Your task to perform on an android device: remove spam from my inbox in the gmail app Image 0: 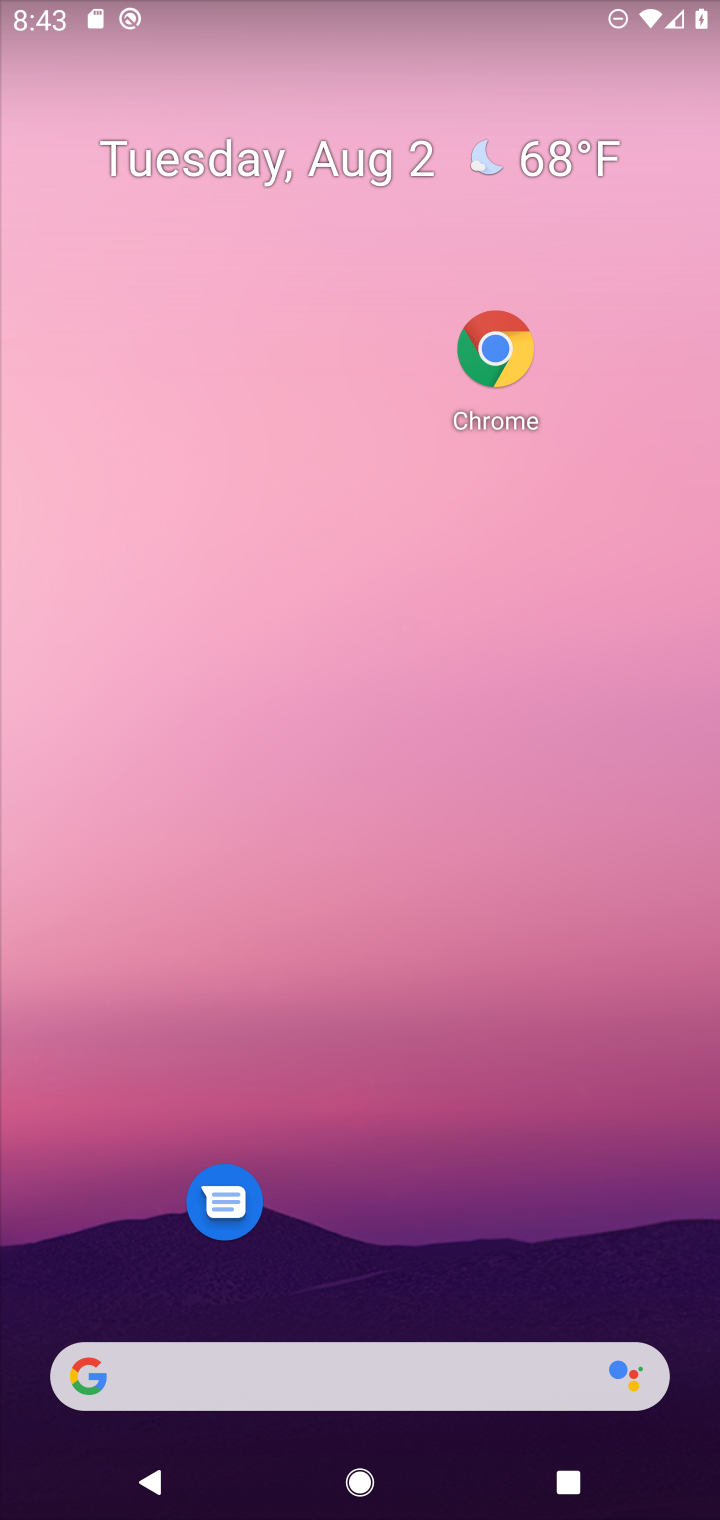
Step 0: drag from (368, 936) to (244, 62)
Your task to perform on an android device: remove spam from my inbox in the gmail app Image 1: 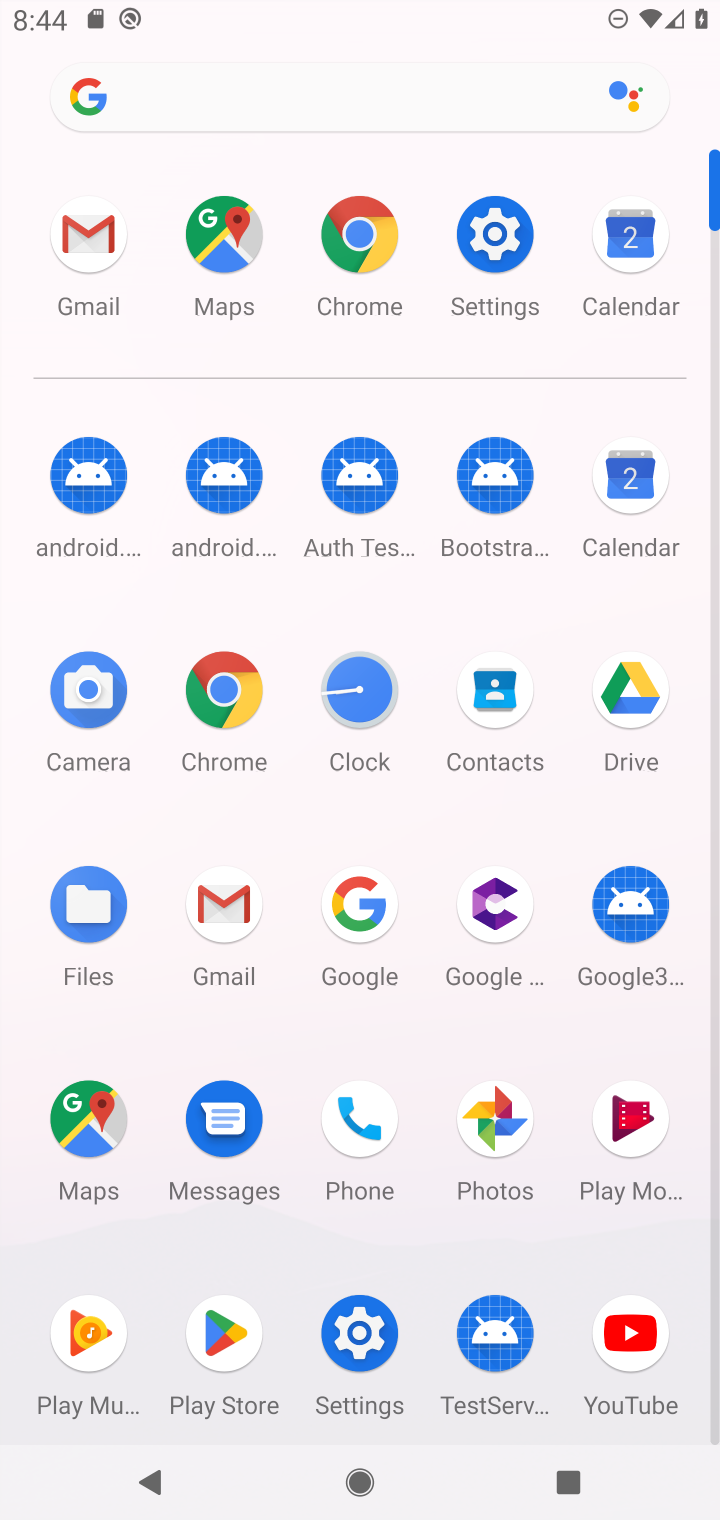
Step 1: click (87, 249)
Your task to perform on an android device: remove spam from my inbox in the gmail app Image 2: 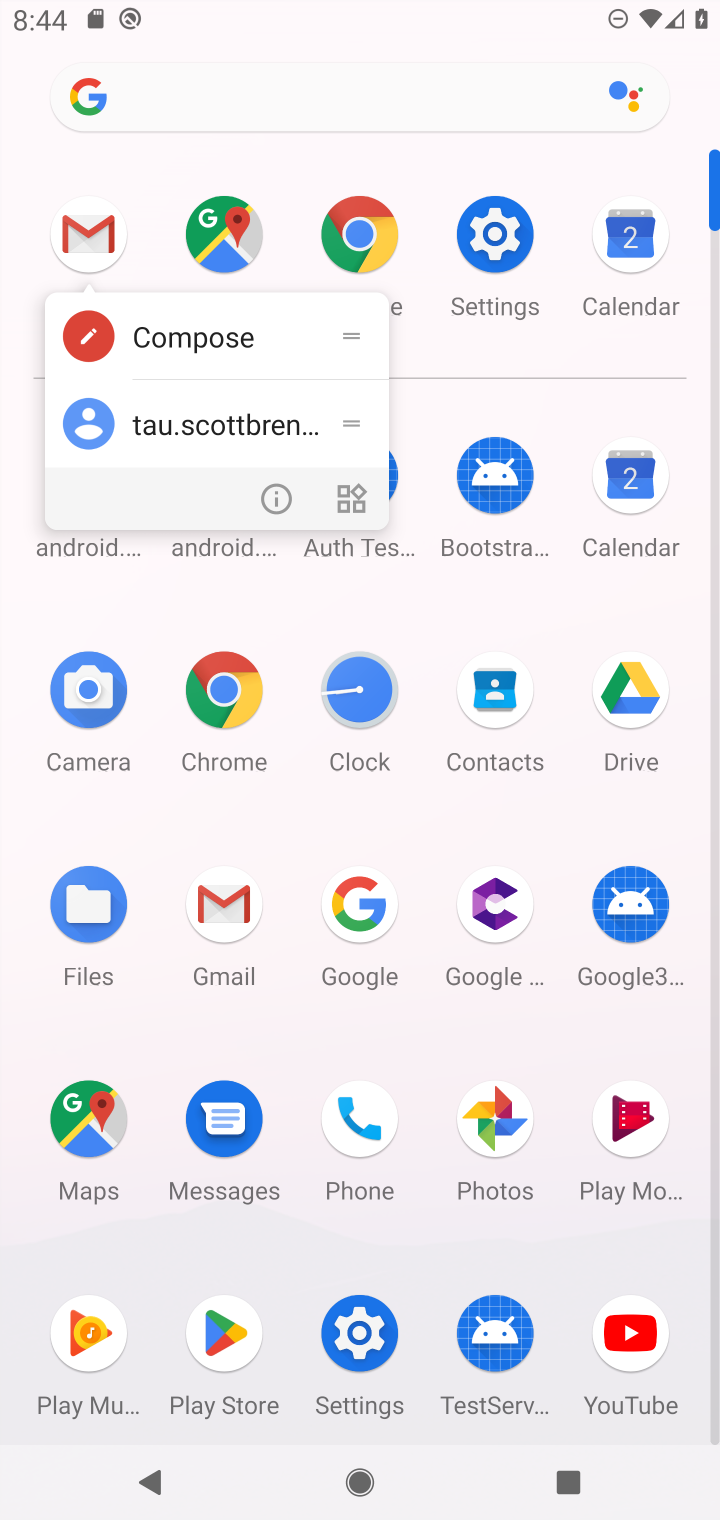
Step 2: click (87, 249)
Your task to perform on an android device: remove spam from my inbox in the gmail app Image 3: 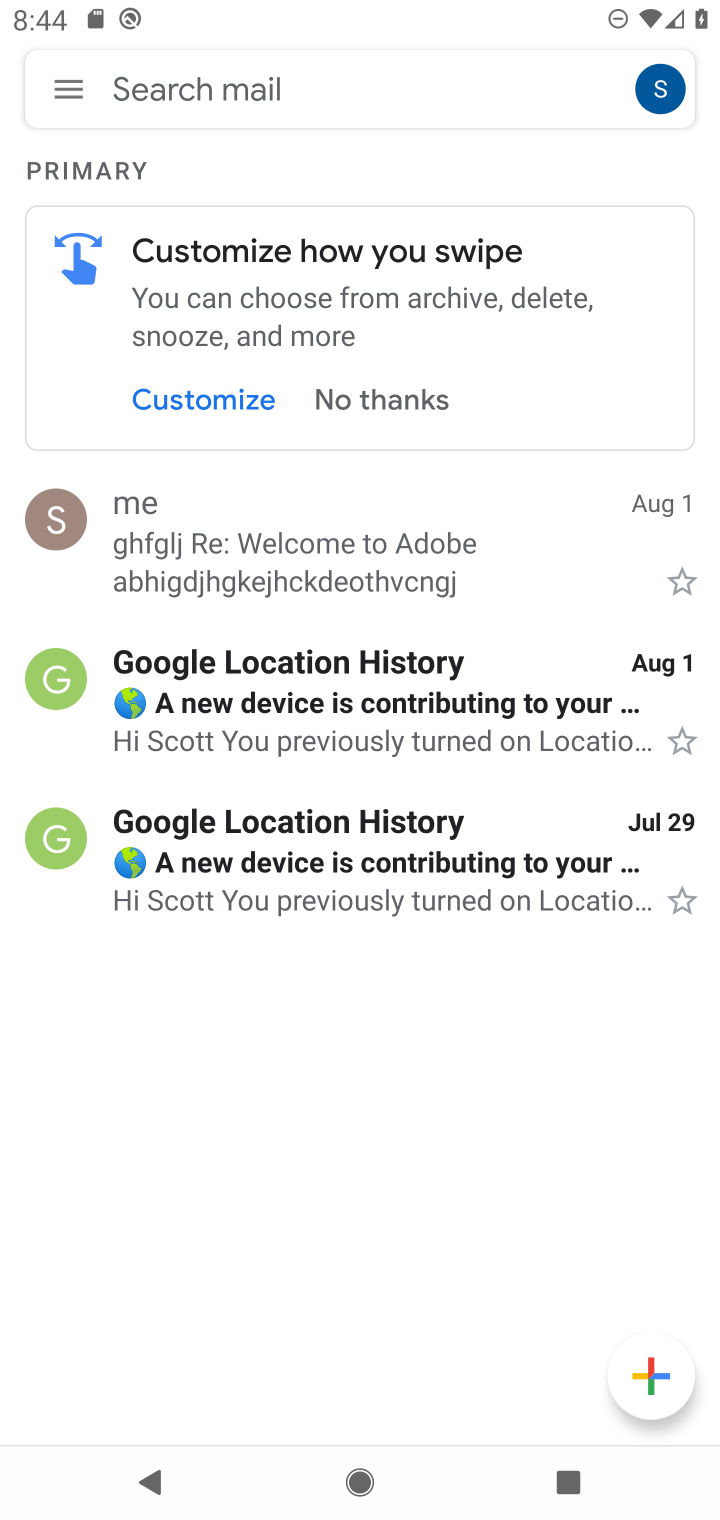
Step 3: click (63, 87)
Your task to perform on an android device: remove spam from my inbox in the gmail app Image 4: 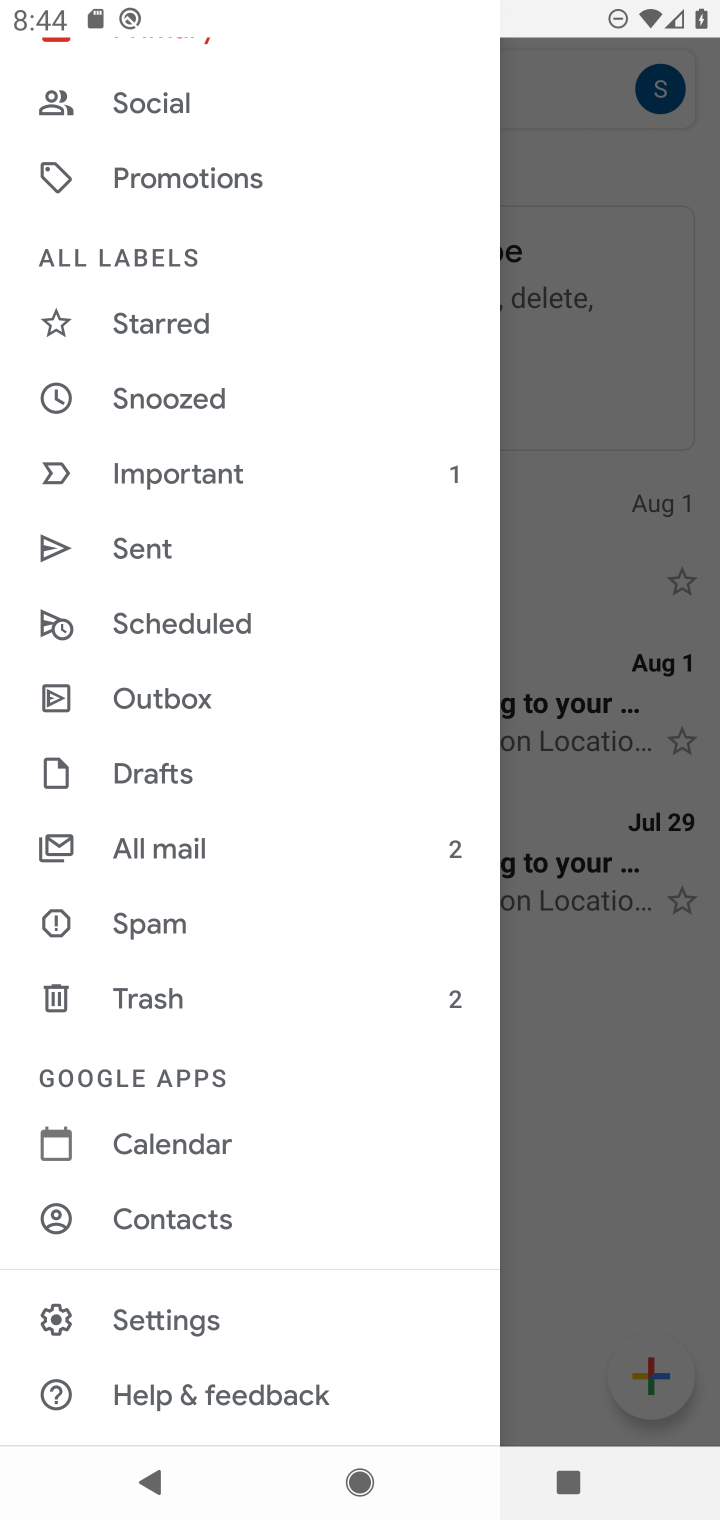
Step 4: click (134, 947)
Your task to perform on an android device: remove spam from my inbox in the gmail app Image 5: 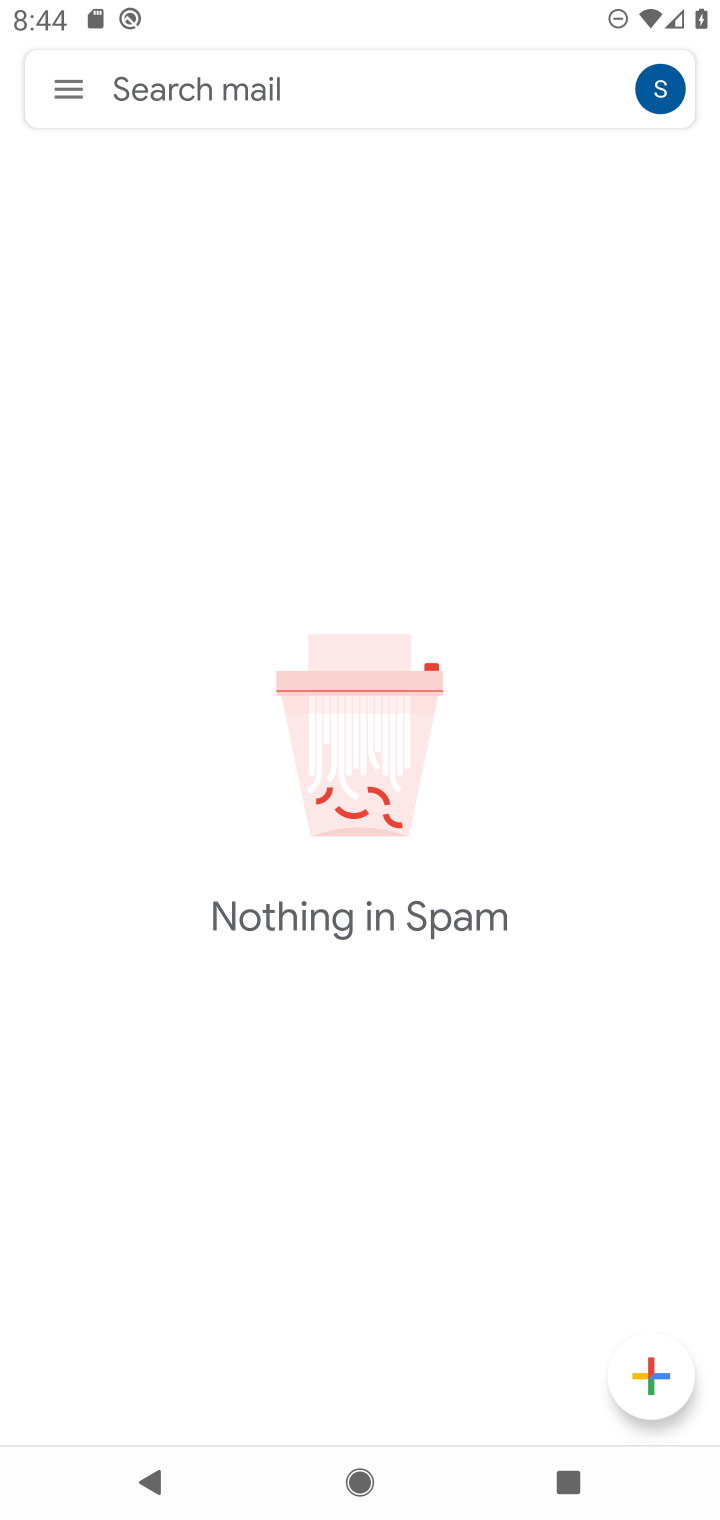
Step 5: task complete